Your task to perform on an android device: Open settings Image 0: 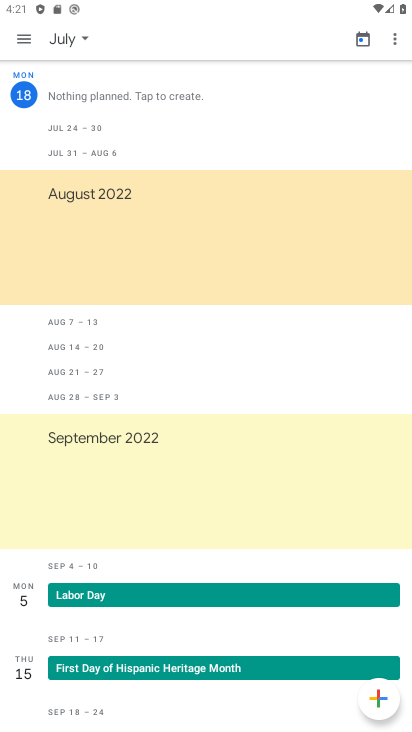
Step 0: press home button
Your task to perform on an android device: Open settings Image 1: 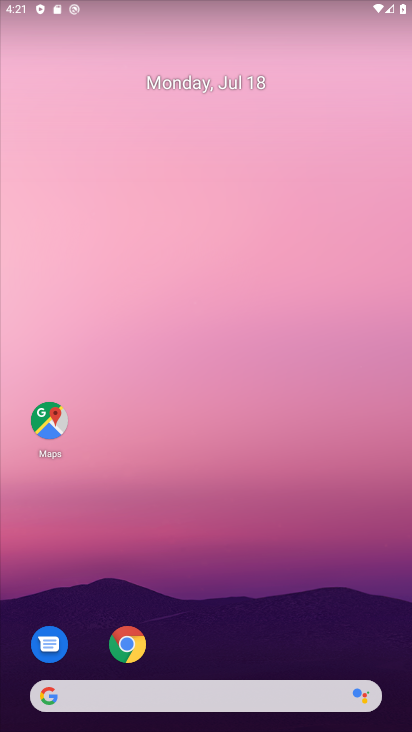
Step 1: drag from (267, 665) to (231, 129)
Your task to perform on an android device: Open settings Image 2: 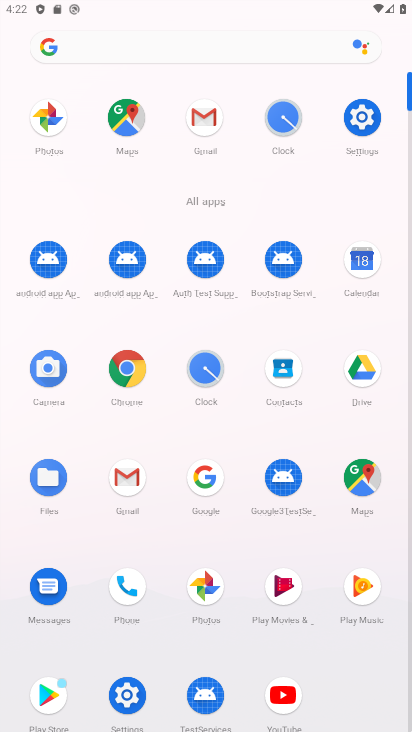
Step 2: click (362, 122)
Your task to perform on an android device: Open settings Image 3: 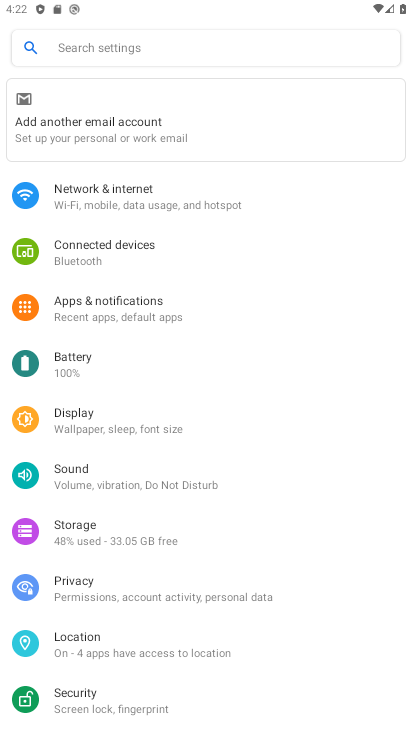
Step 3: task complete